Your task to perform on an android device: Play the last video I watched on Youtube Image 0: 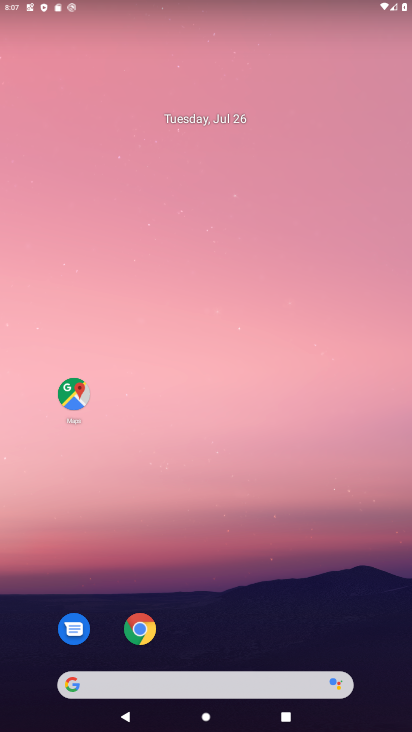
Step 0: press home button
Your task to perform on an android device: Play the last video I watched on Youtube Image 1: 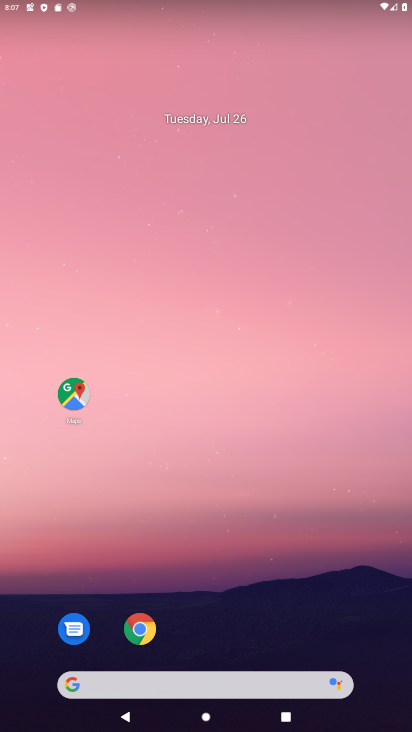
Step 1: drag from (208, 648) to (241, 1)
Your task to perform on an android device: Play the last video I watched on Youtube Image 2: 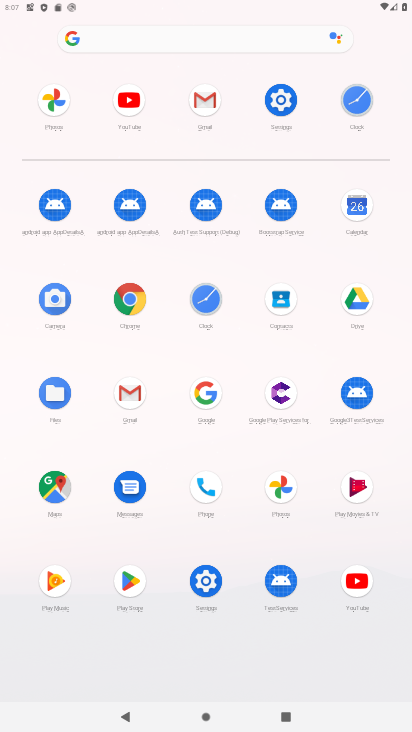
Step 2: click (356, 576)
Your task to perform on an android device: Play the last video I watched on Youtube Image 3: 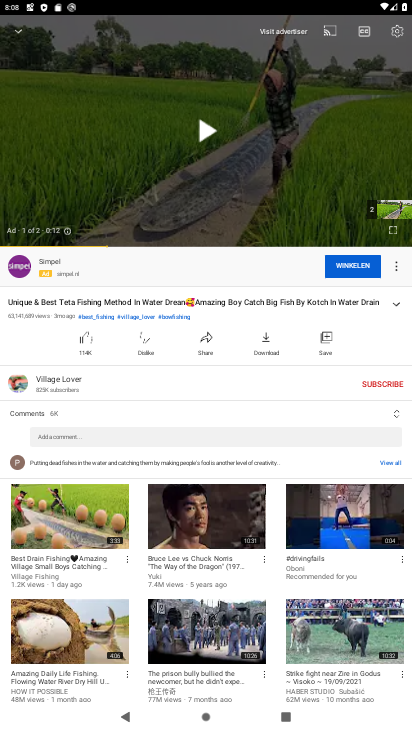
Step 3: click (207, 128)
Your task to perform on an android device: Play the last video I watched on Youtube Image 4: 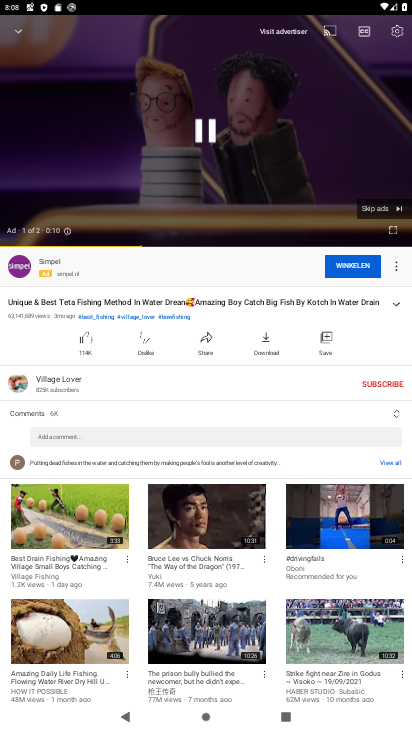
Step 4: click (389, 208)
Your task to perform on an android device: Play the last video I watched on Youtube Image 5: 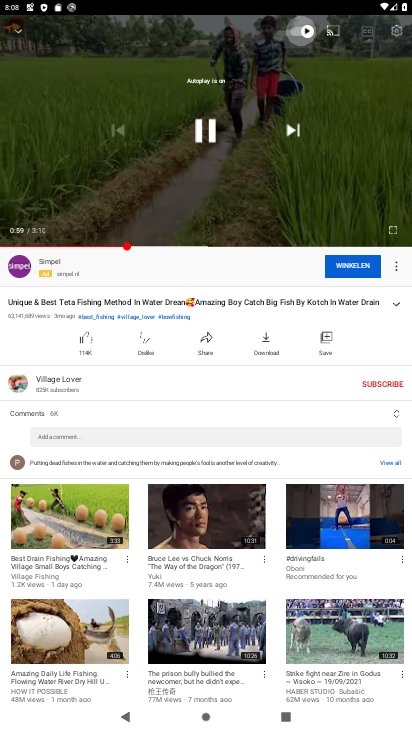
Step 5: task complete